Your task to perform on an android device: What is the news today? Image 0: 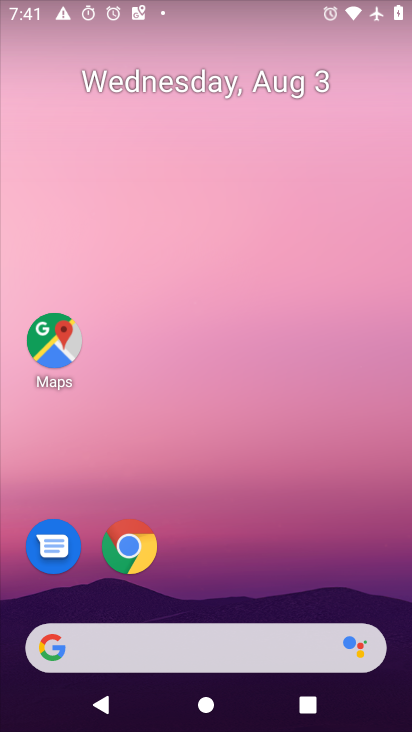
Step 0: press home button
Your task to perform on an android device: What is the news today? Image 1: 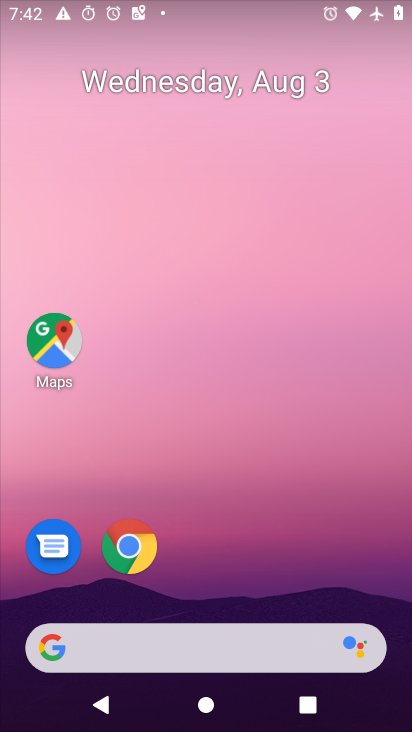
Step 1: press home button
Your task to perform on an android device: What is the news today? Image 2: 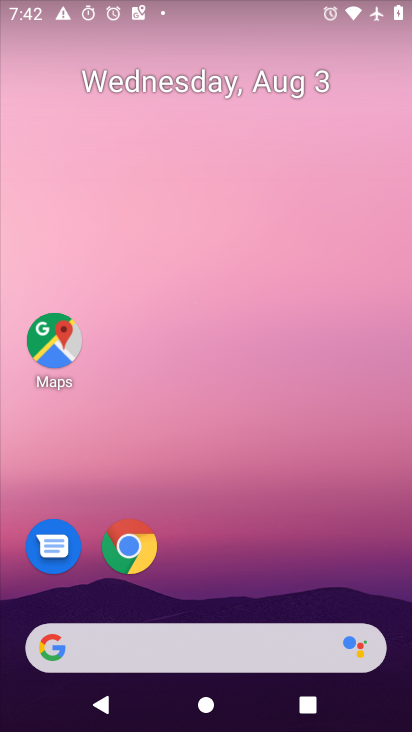
Step 2: click (53, 661)
Your task to perform on an android device: What is the news today? Image 3: 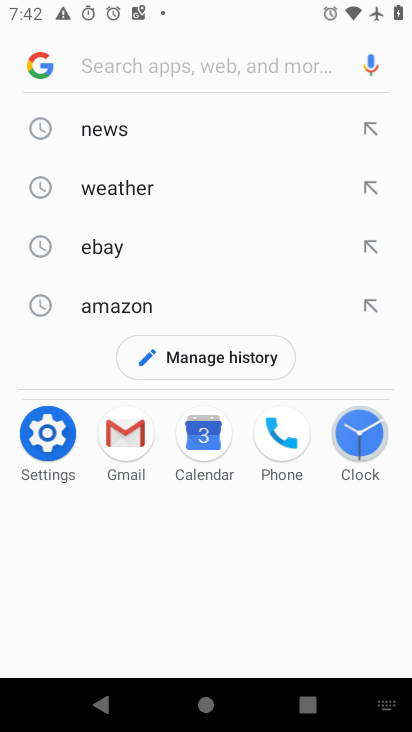
Step 3: type "news today?"
Your task to perform on an android device: What is the news today? Image 4: 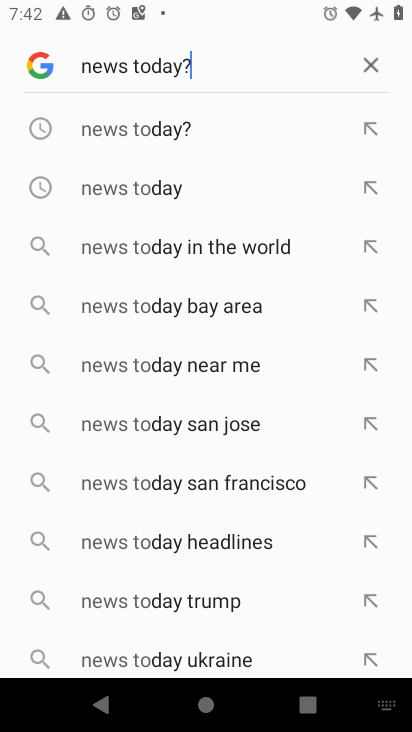
Step 4: press enter
Your task to perform on an android device: What is the news today? Image 5: 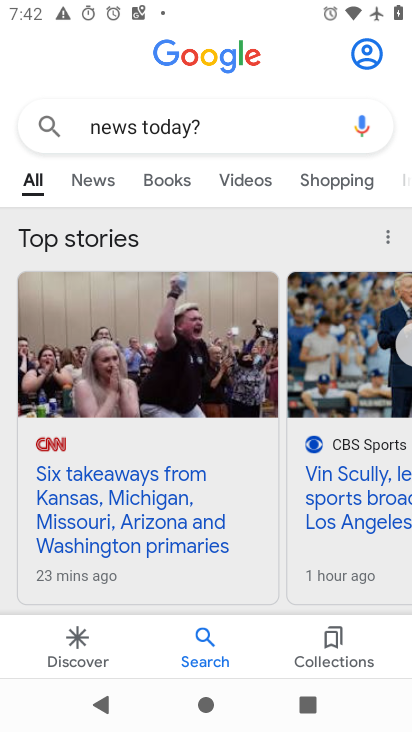
Step 5: task complete